Your task to perform on an android device: turn off priority inbox in the gmail app Image 0: 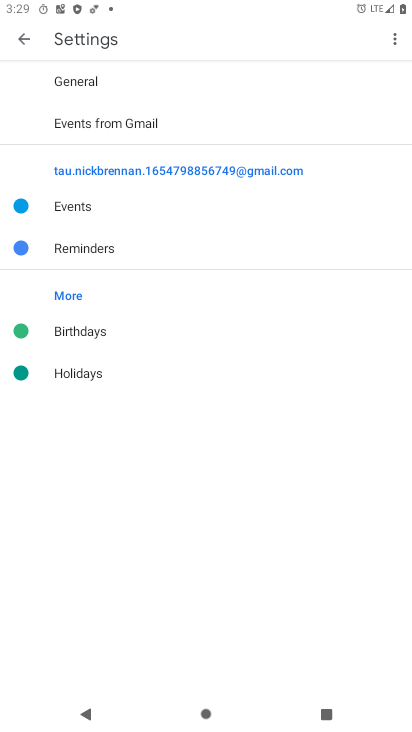
Step 0: press home button
Your task to perform on an android device: turn off priority inbox in the gmail app Image 1: 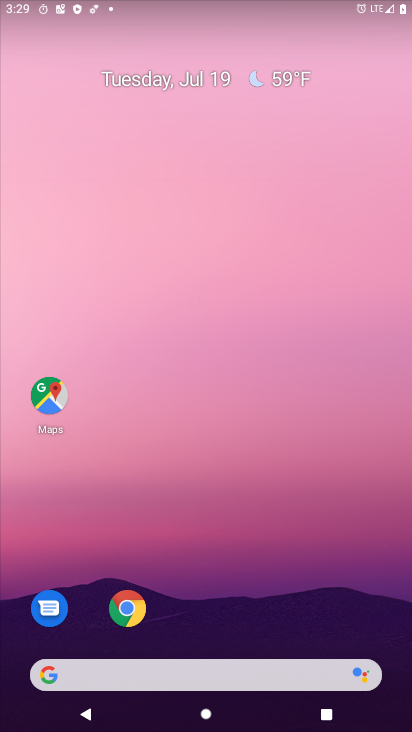
Step 1: drag from (299, 643) to (247, 217)
Your task to perform on an android device: turn off priority inbox in the gmail app Image 2: 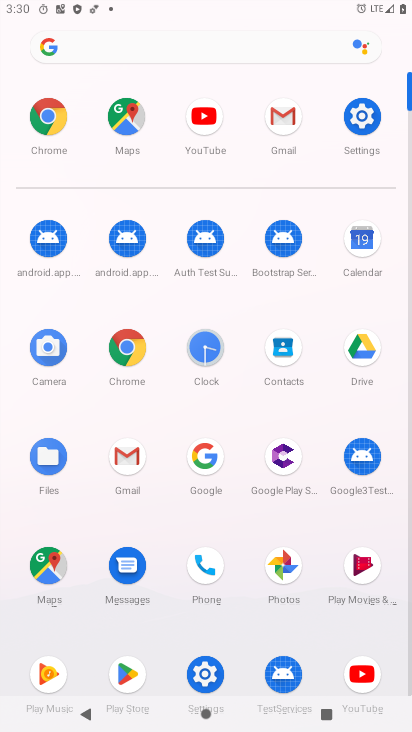
Step 2: click (283, 127)
Your task to perform on an android device: turn off priority inbox in the gmail app Image 3: 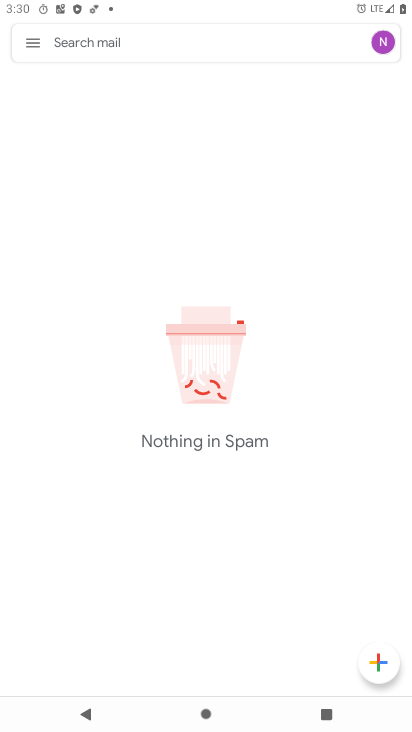
Step 3: click (39, 50)
Your task to perform on an android device: turn off priority inbox in the gmail app Image 4: 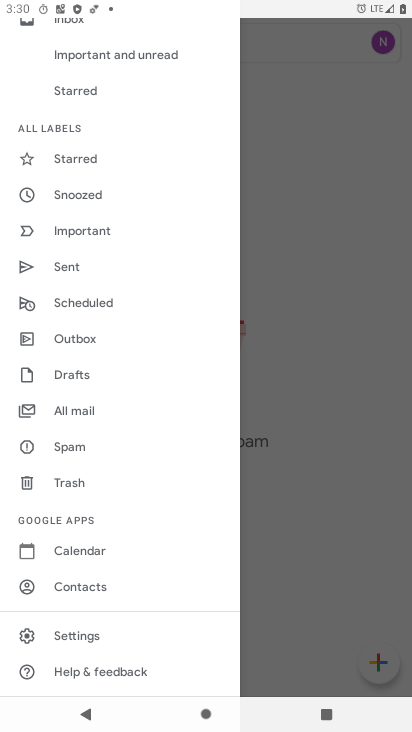
Step 4: click (97, 636)
Your task to perform on an android device: turn off priority inbox in the gmail app Image 5: 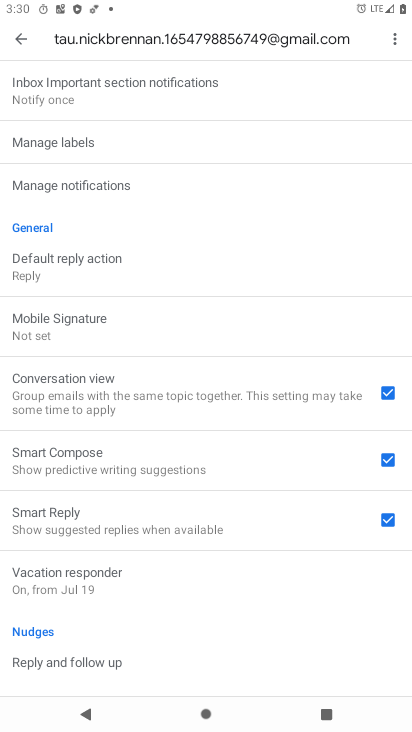
Step 5: drag from (181, 191) to (199, 624)
Your task to perform on an android device: turn off priority inbox in the gmail app Image 6: 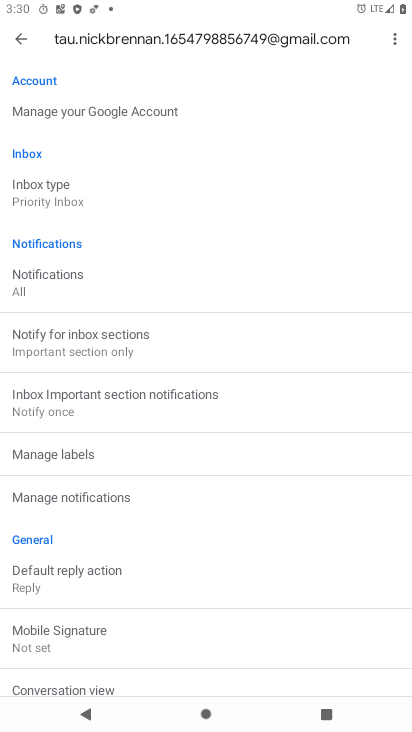
Step 6: click (100, 191)
Your task to perform on an android device: turn off priority inbox in the gmail app Image 7: 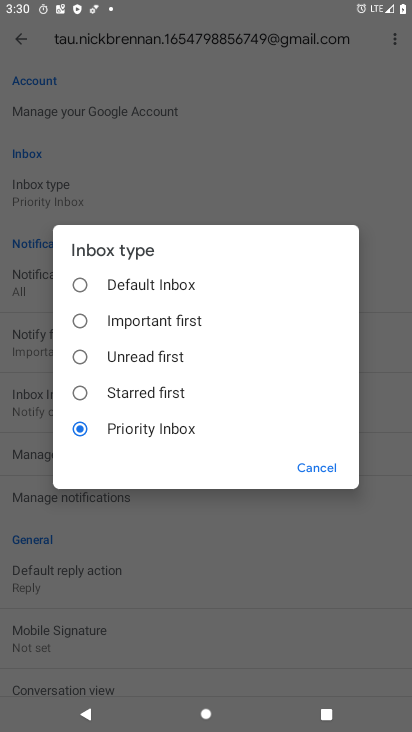
Step 7: click (177, 293)
Your task to perform on an android device: turn off priority inbox in the gmail app Image 8: 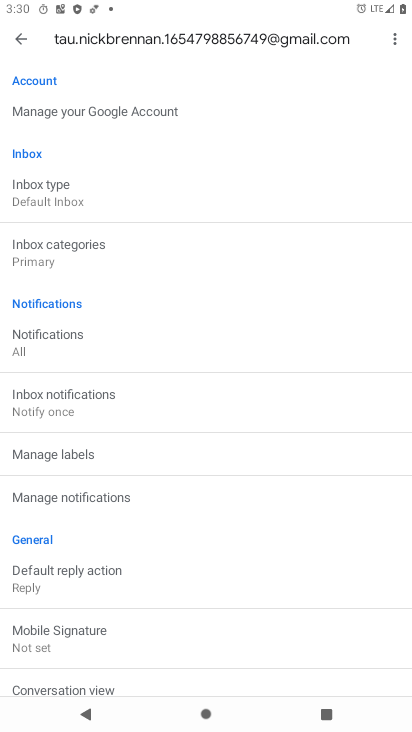
Step 8: task complete